Your task to perform on an android device: Show me popular games on the Play Store Image 0: 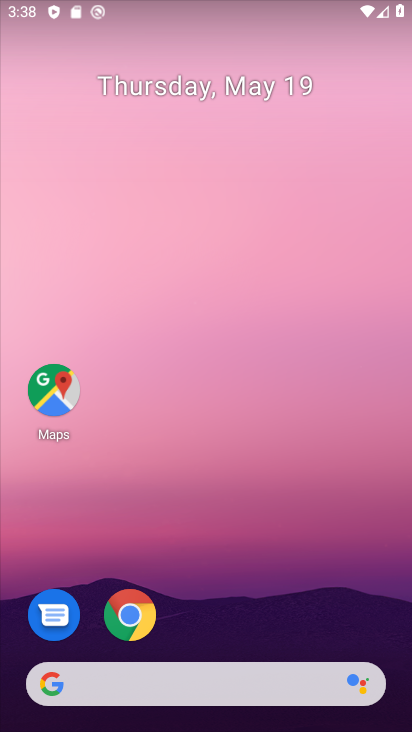
Step 0: drag from (237, 642) to (255, 16)
Your task to perform on an android device: Show me popular games on the Play Store Image 1: 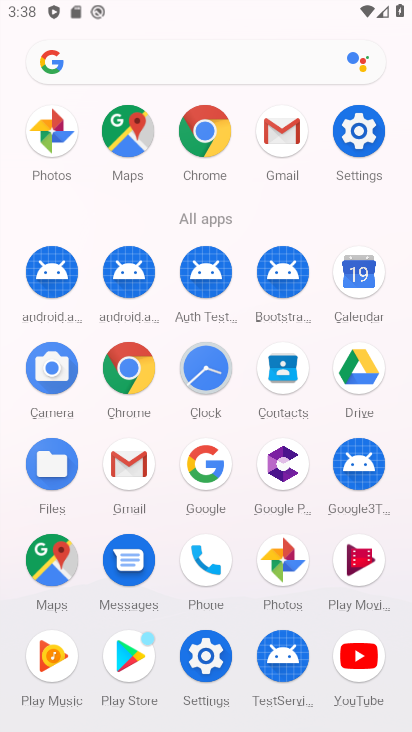
Step 1: click (127, 642)
Your task to perform on an android device: Show me popular games on the Play Store Image 2: 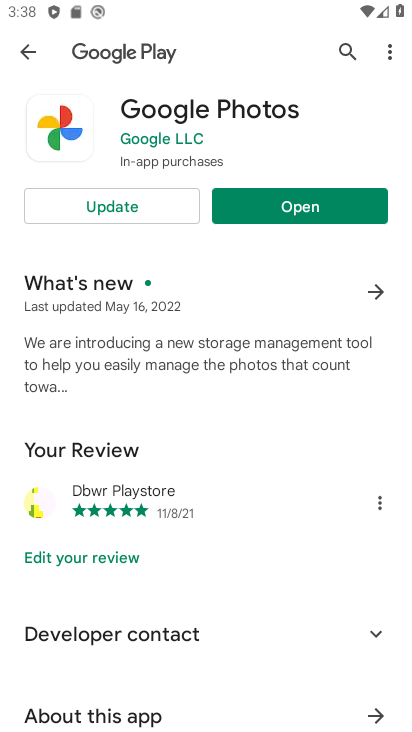
Step 2: click (20, 54)
Your task to perform on an android device: Show me popular games on the Play Store Image 3: 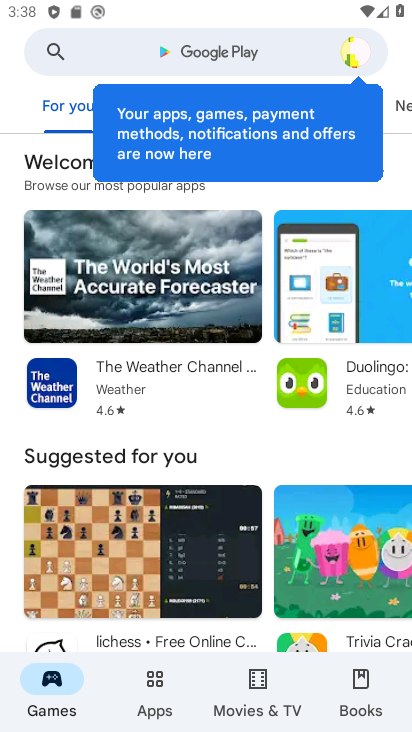
Step 3: drag from (254, 495) to (223, 118)
Your task to perform on an android device: Show me popular games on the Play Store Image 4: 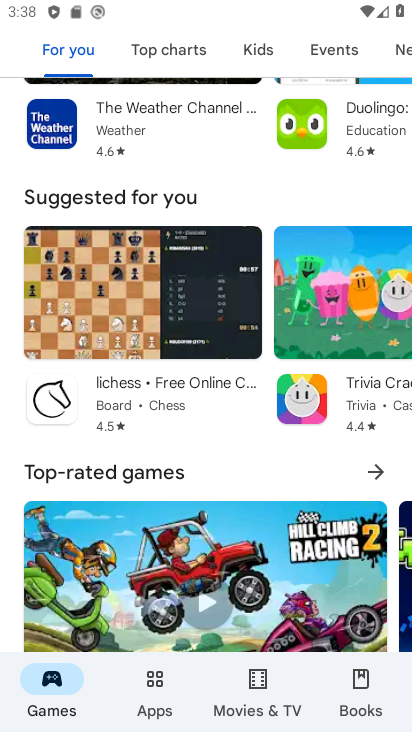
Step 4: drag from (224, 491) to (225, 113)
Your task to perform on an android device: Show me popular games on the Play Store Image 5: 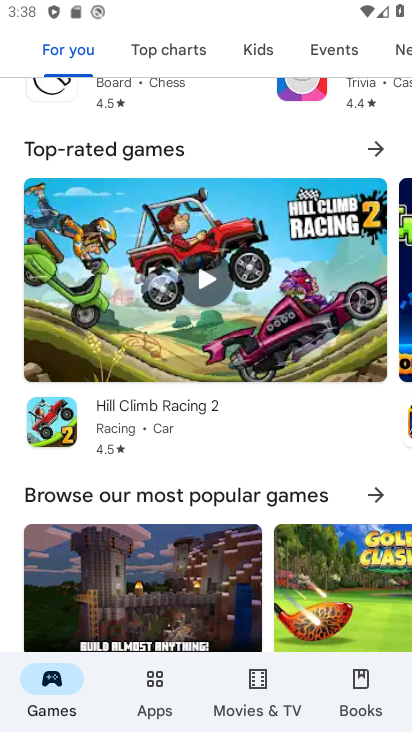
Step 5: click (256, 494)
Your task to perform on an android device: Show me popular games on the Play Store Image 6: 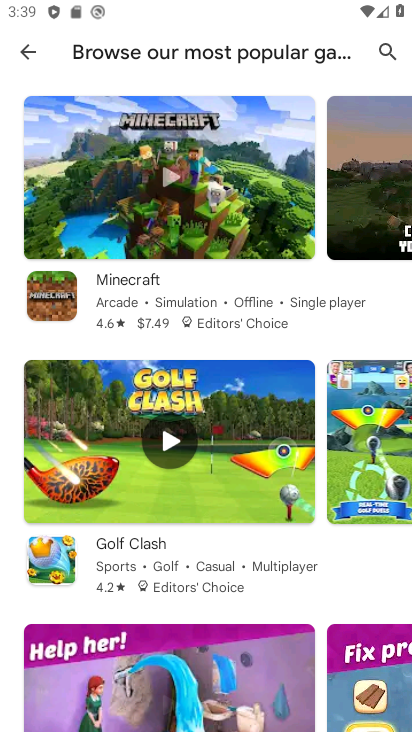
Step 6: task complete